Your task to perform on an android device: Go to Wikipedia Image 0: 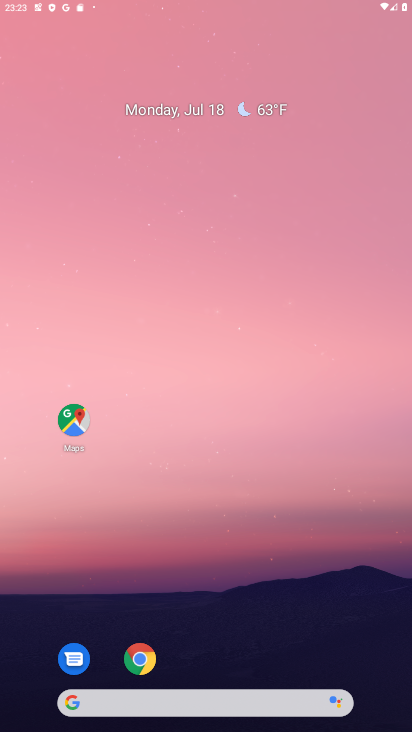
Step 0: press home button
Your task to perform on an android device: Go to Wikipedia Image 1: 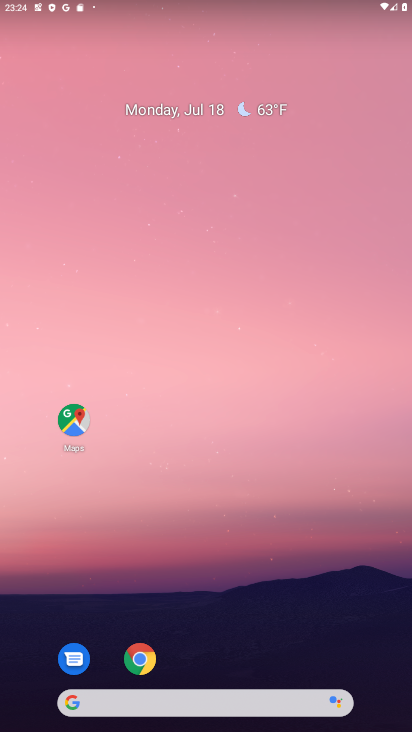
Step 1: click (140, 660)
Your task to perform on an android device: Go to Wikipedia Image 2: 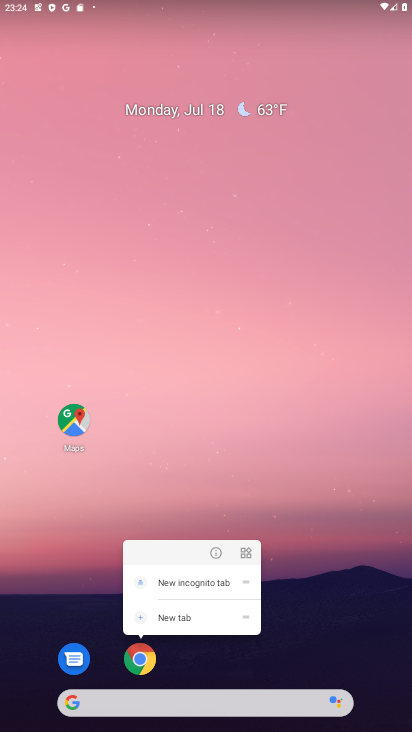
Step 2: click (129, 656)
Your task to perform on an android device: Go to Wikipedia Image 3: 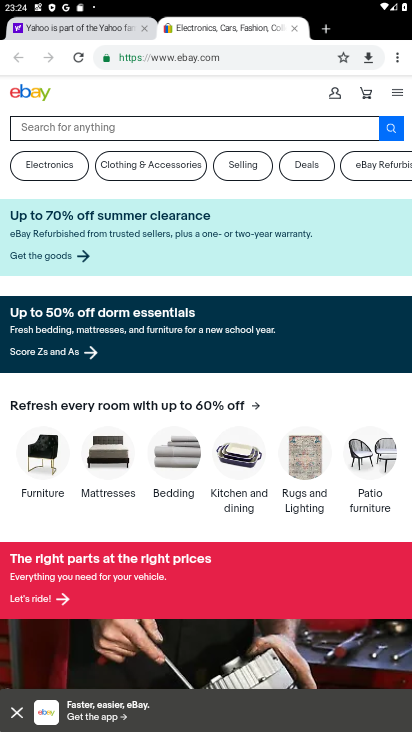
Step 3: click (191, 59)
Your task to perform on an android device: Go to Wikipedia Image 4: 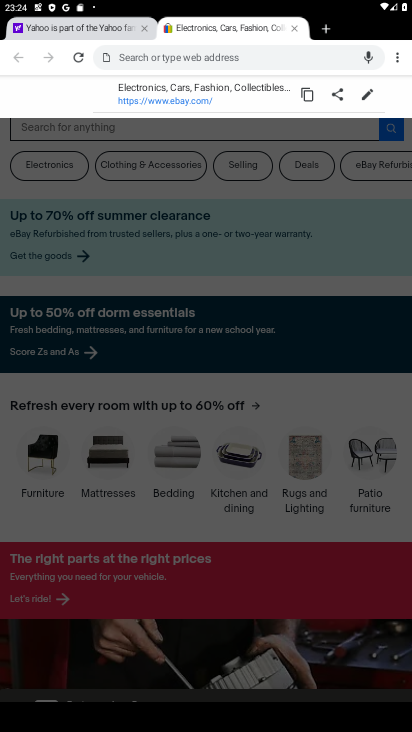
Step 4: type "Wikipedia"
Your task to perform on an android device: Go to Wikipedia Image 5: 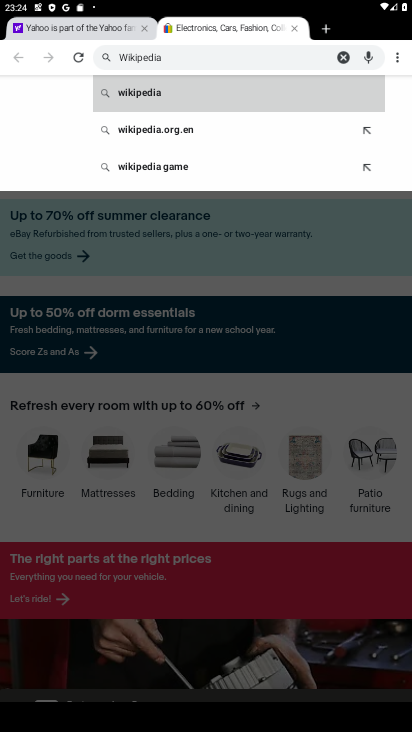
Step 5: type ""
Your task to perform on an android device: Go to Wikipedia Image 6: 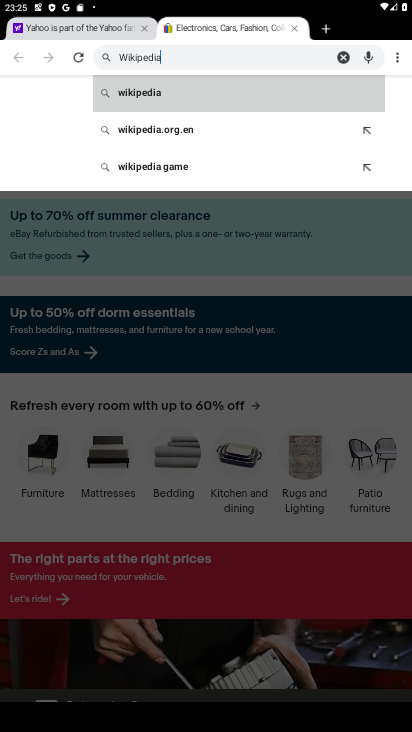
Step 6: click (168, 99)
Your task to perform on an android device: Go to Wikipedia Image 7: 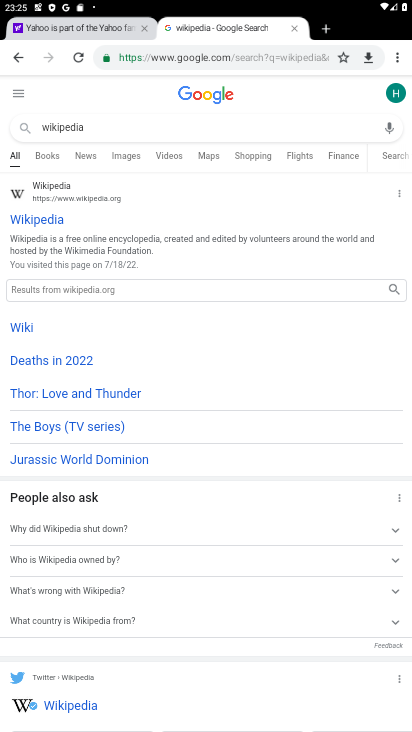
Step 7: click (62, 234)
Your task to perform on an android device: Go to Wikipedia Image 8: 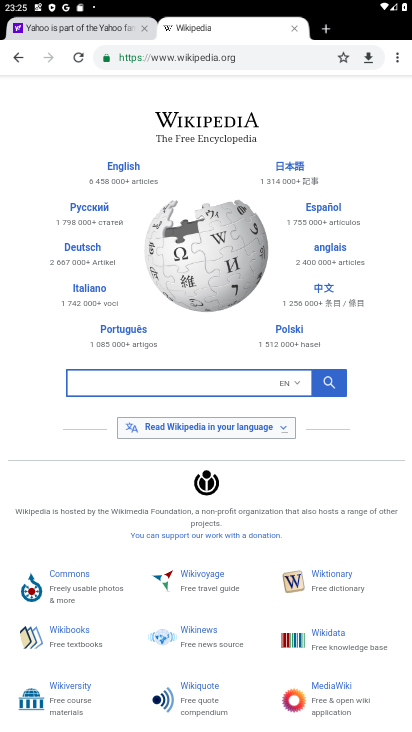
Step 8: task complete